Your task to perform on an android device: Is it going to rain this weekend? Image 0: 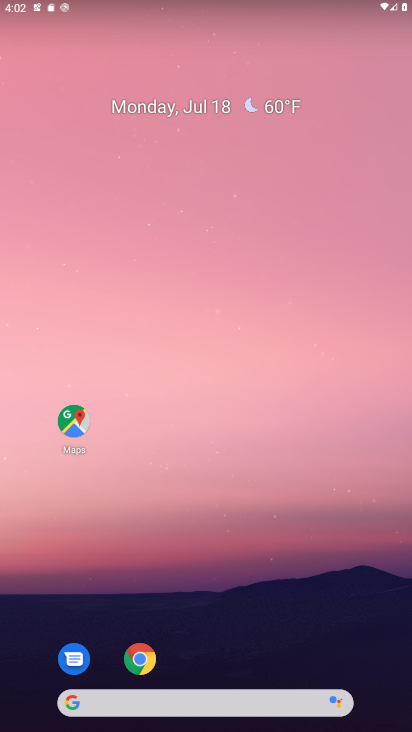
Step 0: drag from (277, 701) to (292, 12)
Your task to perform on an android device: Is it going to rain this weekend? Image 1: 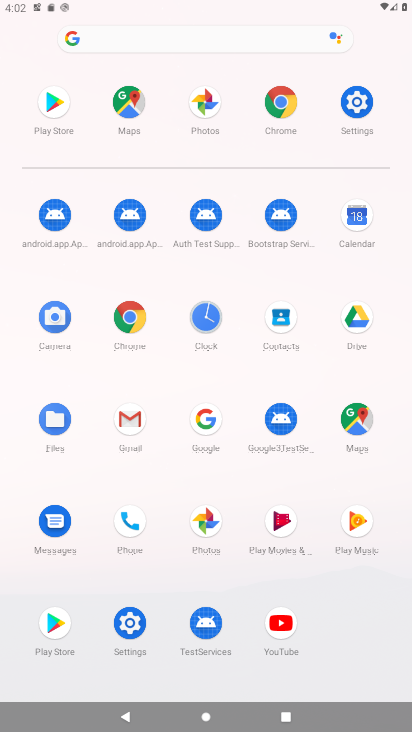
Step 1: click (343, 225)
Your task to perform on an android device: Is it going to rain this weekend? Image 2: 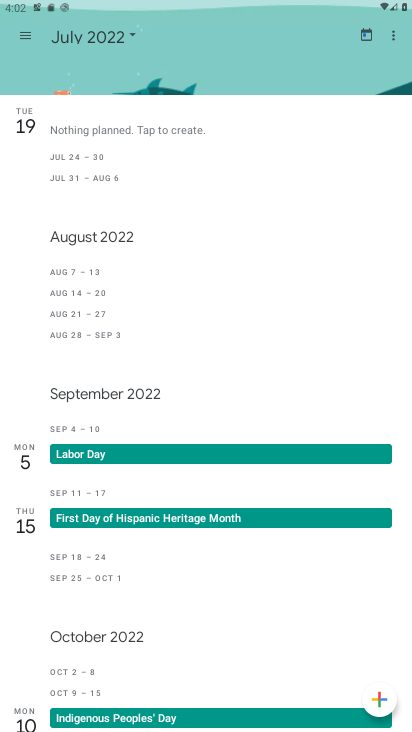
Step 2: click (136, 31)
Your task to perform on an android device: Is it going to rain this weekend? Image 3: 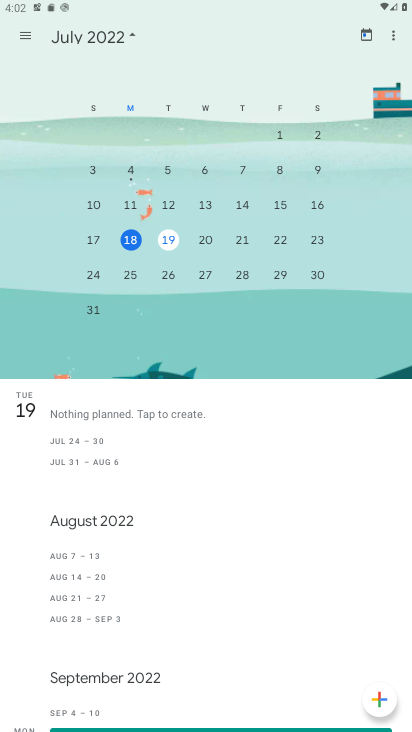
Step 3: press home button
Your task to perform on an android device: Is it going to rain this weekend? Image 4: 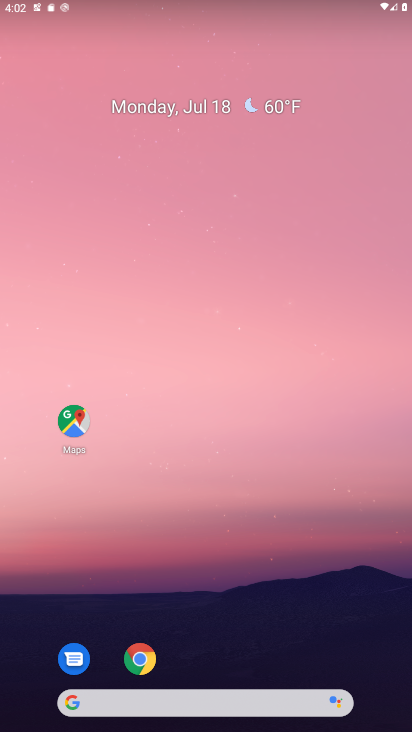
Step 4: drag from (265, 683) to (220, 1)
Your task to perform on an android device: Is it going to rain this weekend? Image 5: 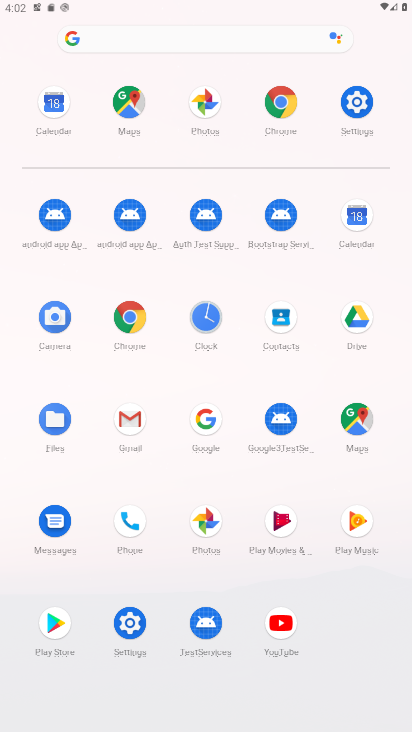
Step 5: click (110, 302)
Your task to perform on an android device: Is it going to rain this weekend? Image 6: 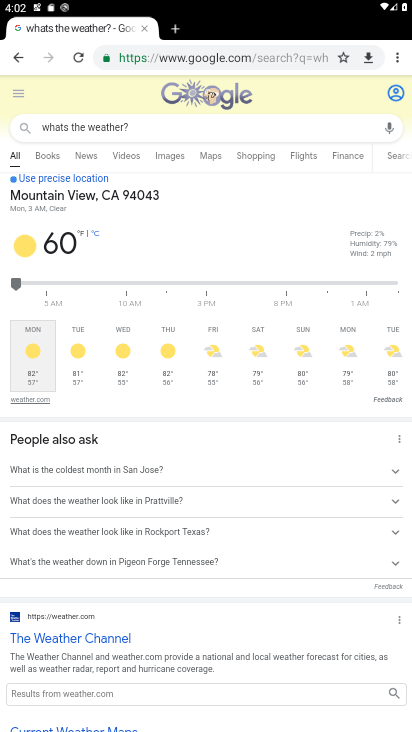
Step 6: click (175, 54)
Your task to perform on an android device: Is it going to rain this weekend? Image 7: 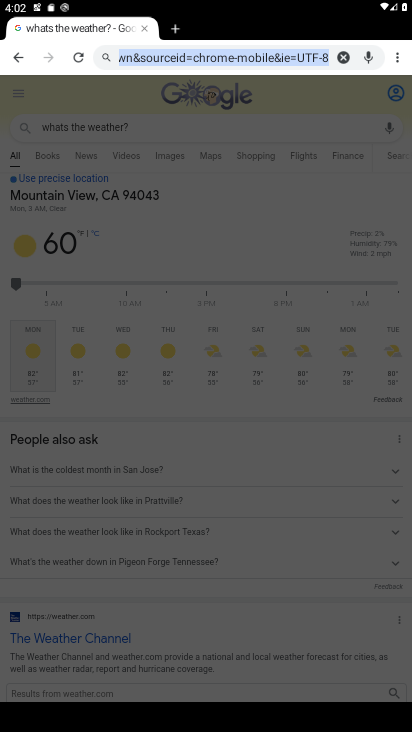
Step 7: type "is it going to rain this weekend"
Your task to perform on an android device: Is it going to rain this weekend? Image 8: 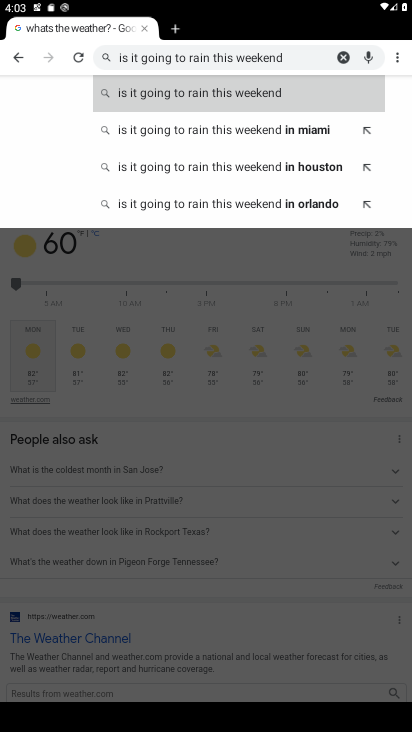
Step 8: click (257, 93)
Your task to perform on an android device: Is it going to rain this weekend? Image 9: 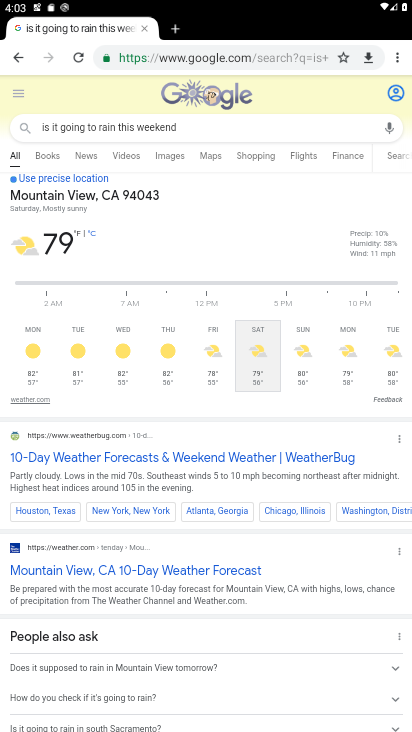
Step 9: task complete